Your task to perform on an android device: turn on showing notifications on the lock screen Image 0: 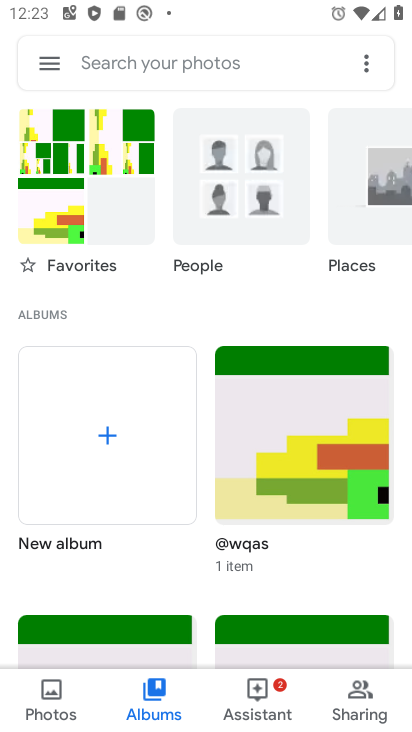
Step 0: press home button
Your task to perform on an android device: turn on showing notifications on the lock screen Image 1: 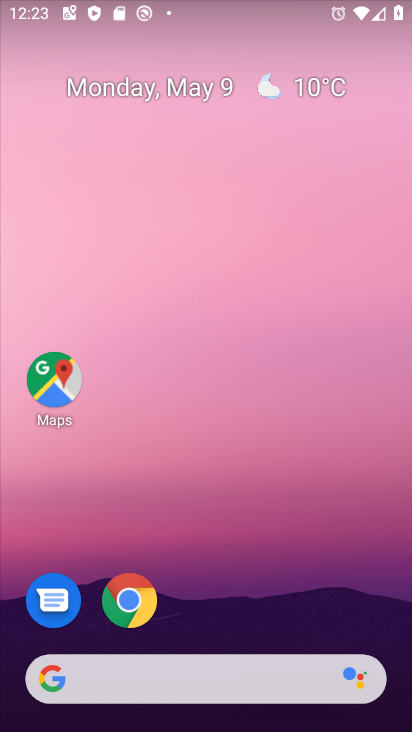
Step 1: drag from (186, 614) to (262, 219)
Your task to perform on an android device: turn on showing notifications on the lock screen Image 2: 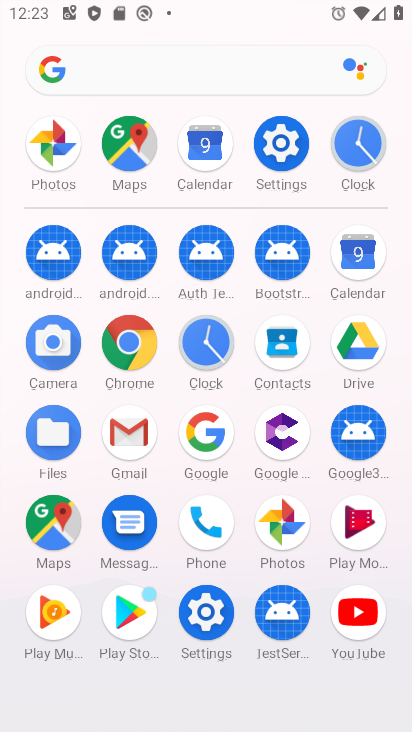
Step 2: click (282, 140)
Your task to perform on an android device: turn on showing notifications on the lock screen Image 3: 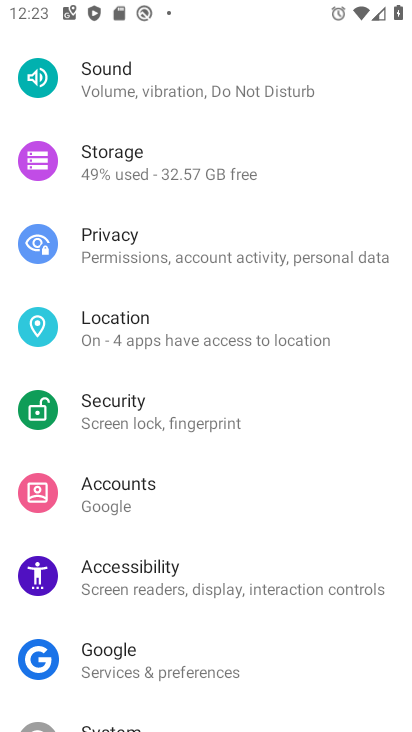
Step 3: drag from (223, 504) to (218, 711)
Your task to perform on an android device: turn on showing notifications on the lock screen Image 4: 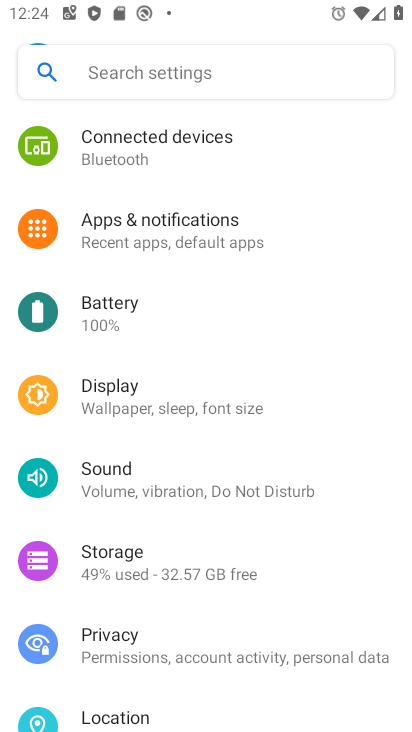
Step 4: drag from (200, 146) to (166, 517)
Your task to perform on an android device: turn on showing notifications on the lock screen Image 5: 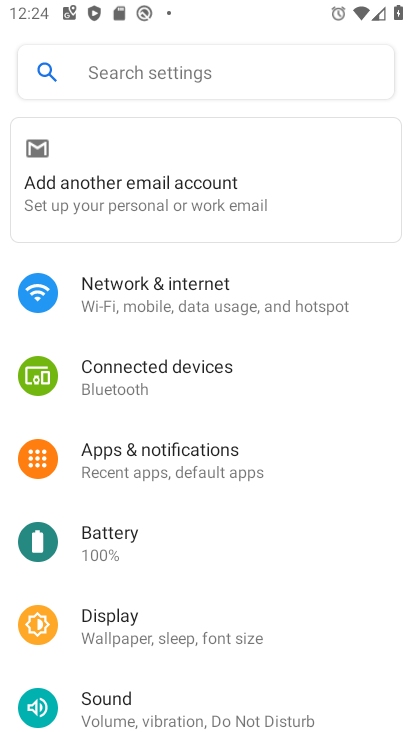
Step 5: click (214, 451)
Your task to perform on an android device: turn on showing notifications on the lock screen Image 6: 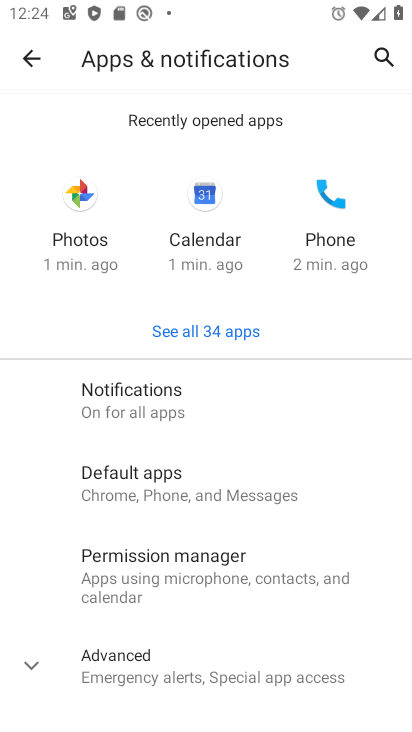
Step 6: click (183, 399)
Your task to perform on an android device: turn on showing notifications on the lock screen Image 7: 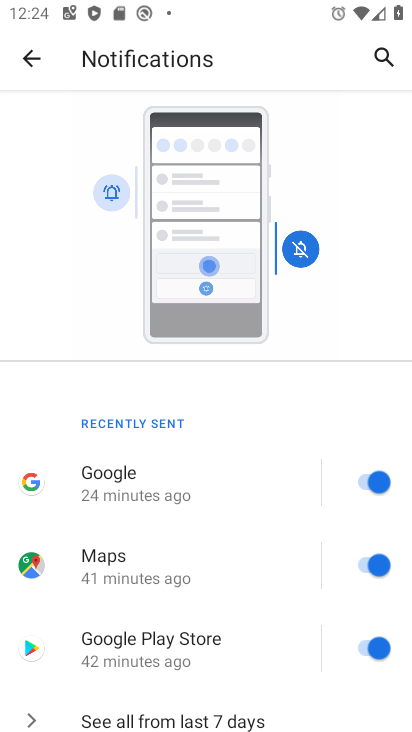
Step 7: drag from (158, 618) to (216, 243)
Your task to perform on an android device: turn on showing notifications on the lock screen Image 8: 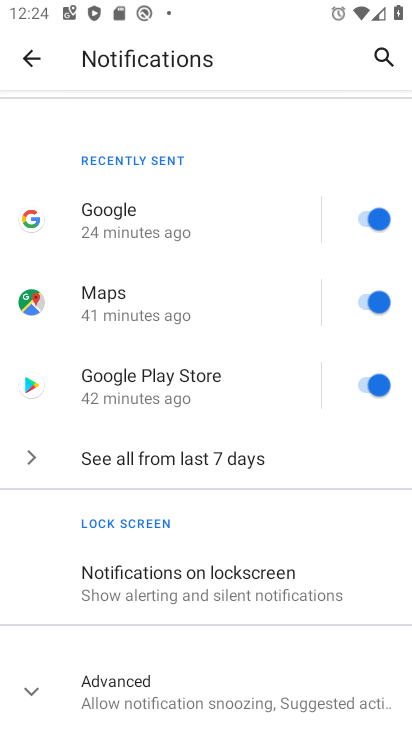
Step 8: click (166, 581)
Your task to perform on an android device: turn on showing notifications on the lock screen Image 9: 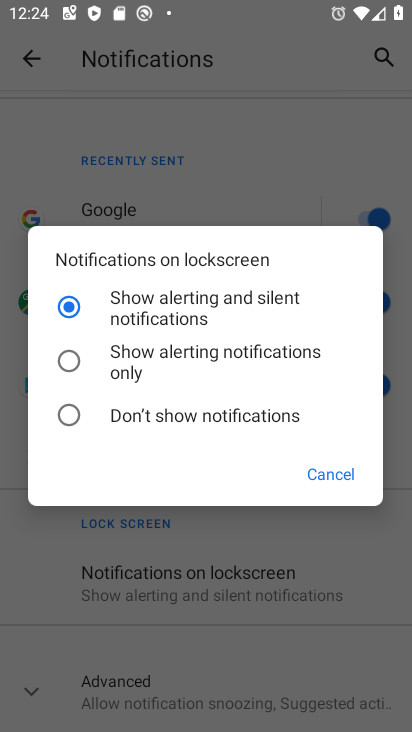
Step 9: task complete